Your task to perform on an android device: Open calendar and show me the first week of next month Image 0: 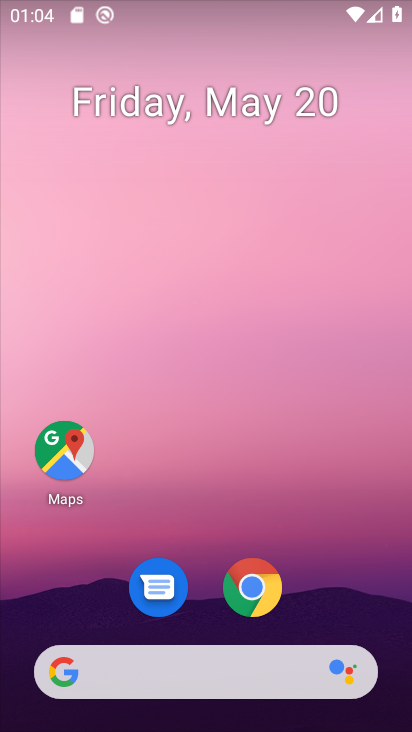
Step 0: drag from (365, 596) to (349, 154)
Your task to perform on an android device: Open calendar and show me the first week of next month Image 1: 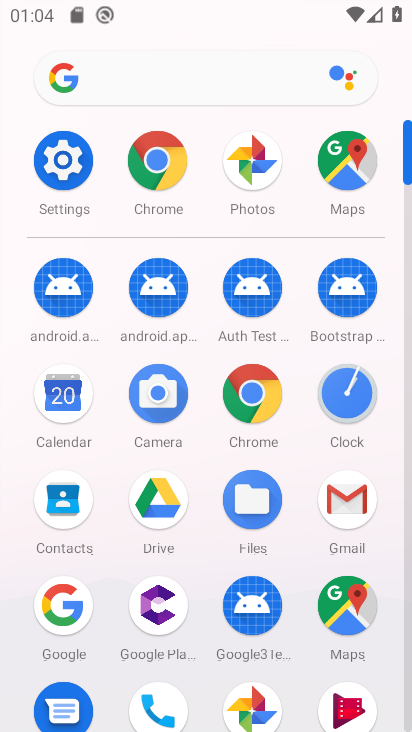
Step 1: click (73, 409)
Your task to perform on an android device: Open calendar and show me the first week of next month Image 2: 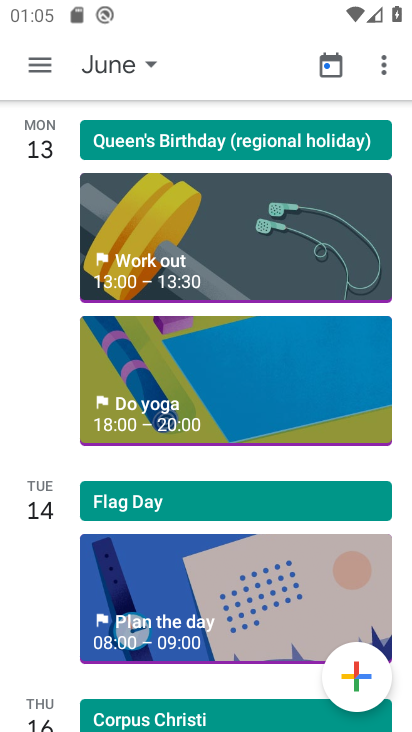
Step 2: click (151, 65)
Your task to perform on an android device: Open calendar and show me the first week of next month Image 3: 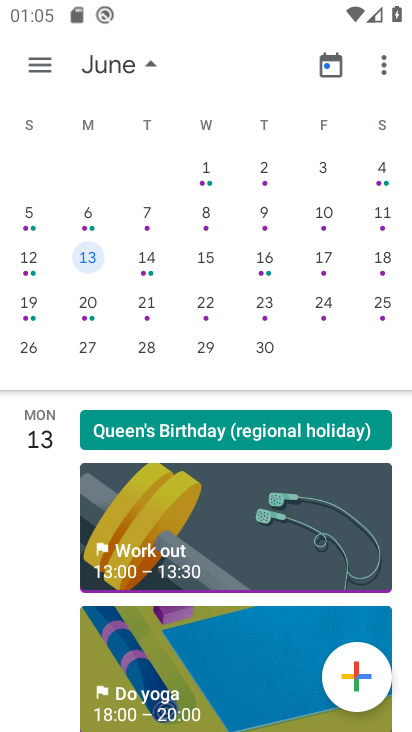
Step 3: click (208, 177)
Your task to perform on an android device: Open calendar and show me the first week of next month Image 4: 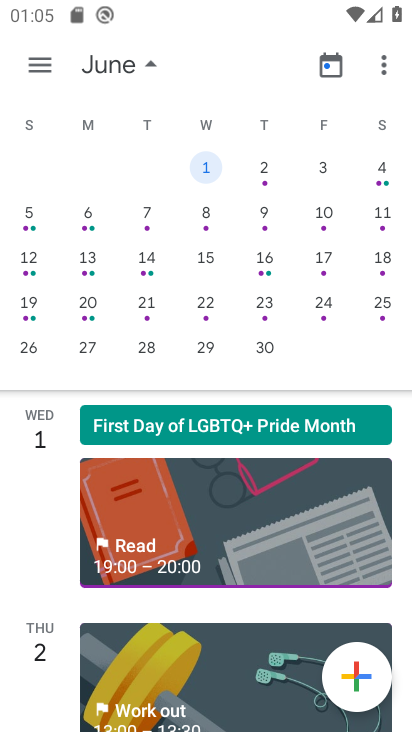
Step 4: task complete